Your task to perform on an android device: Go to Maps Image 0: 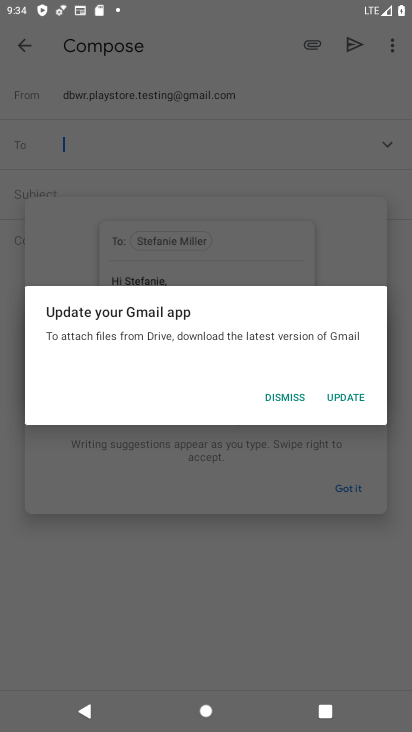
Step 0: click (293, 395)
Your task to perform on an android device: Go to Maps Image 1: 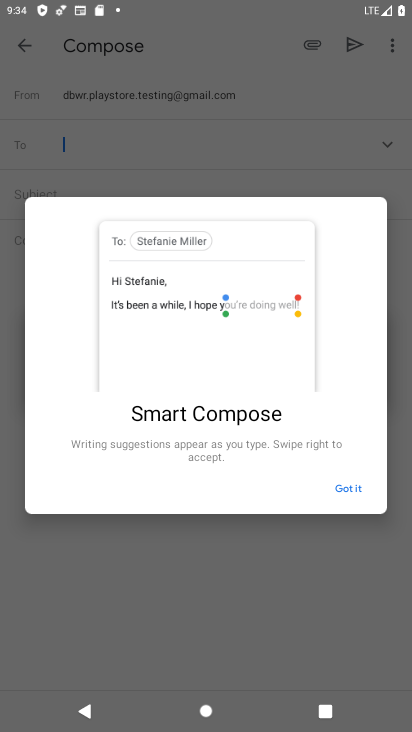
Step 1: click (342, 480)
Your task to perform on an android device: Go to Maps Image 2: 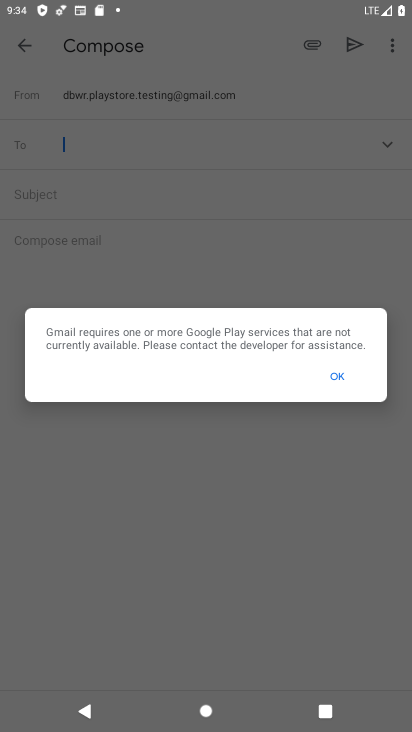
Step 2: click (342, 492)
Your task to perform on an android device: Go to Maps Image 3: 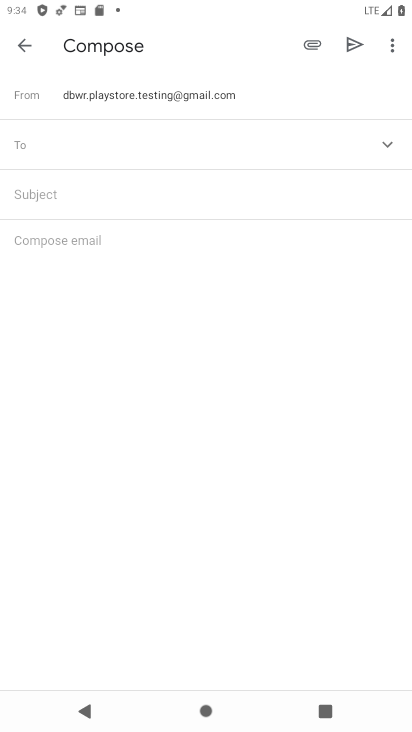
Step 3: press home button
Your task to perform on an android device: Go to Maps Image 4: 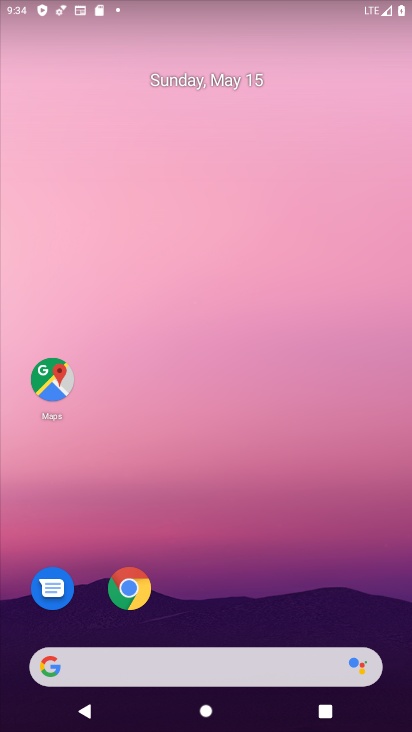
Step 4: click (44, 388)
Your task to perform on an android device: Go to Maps Image 5: 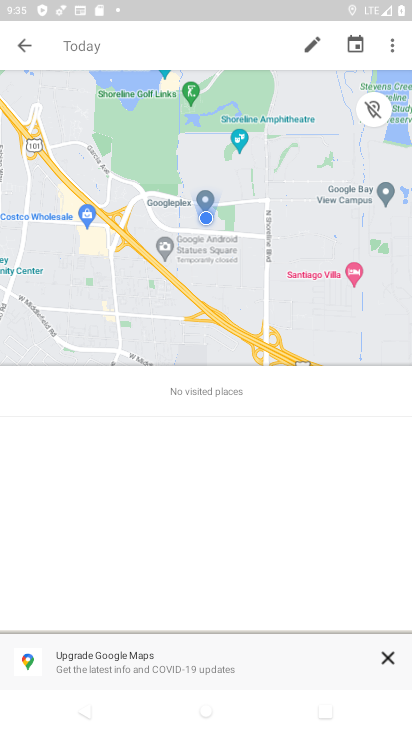
Step 5: click (391, 660)
Your task to perform on an android device: Go to Maps Image 6: 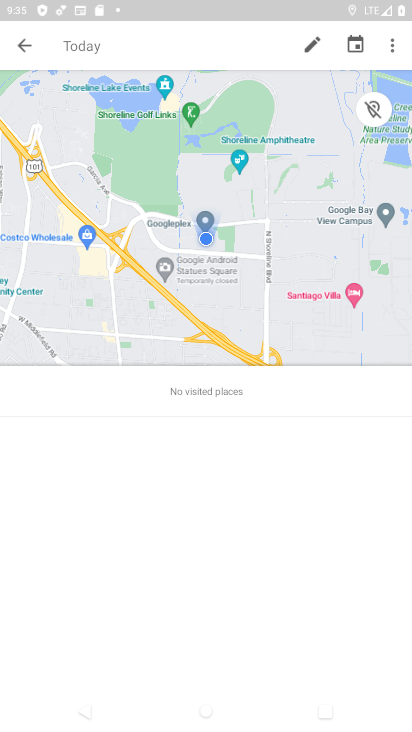
Step 6: task complete